Your task to perform on an android device: turn off airplane mode Image 0: 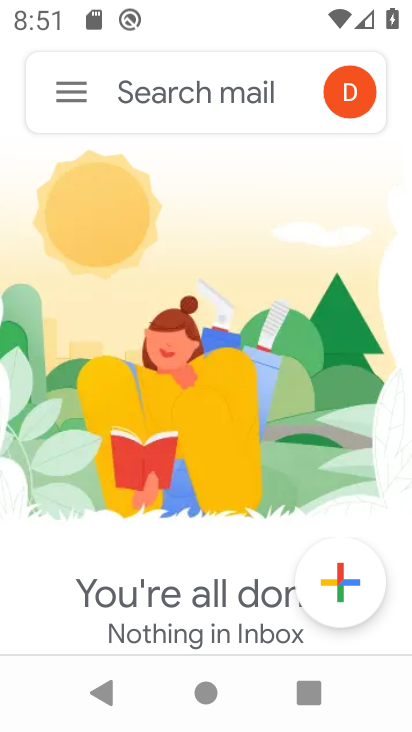
Step 0: press home button
Your task to perform on an android device: turn off airplane mode Image 1: 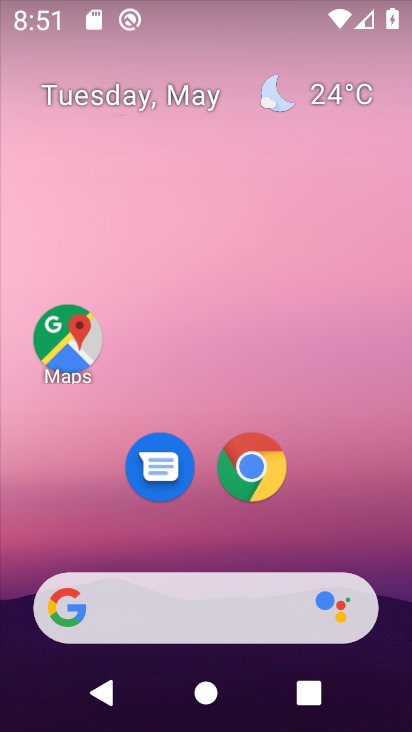
Step 1: drag from (396, 664) to (344, 219)
Your task to perform on an android device: turn off airplane mode Image 2: 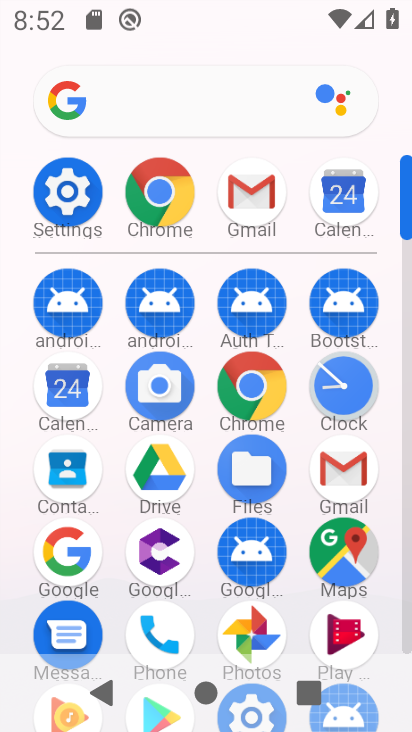
Step 2: click (72, 192)
Your task to perform on an android device: turn off airplane mode Image 3: 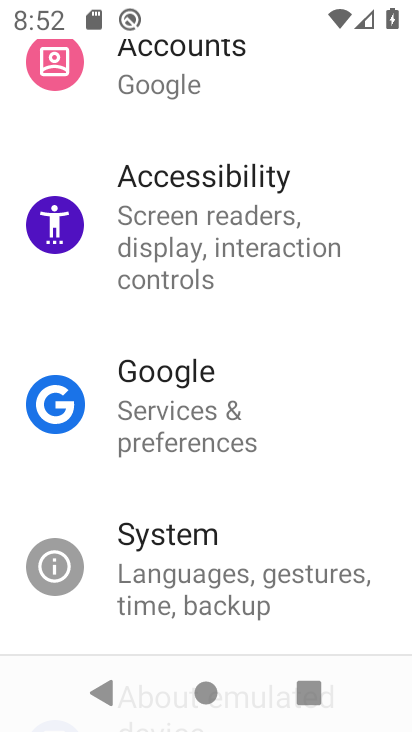
Step 3: drag from (340, 625) to (319, 508)
Your task to perform on an android device: turn off airplane mode Image 4: 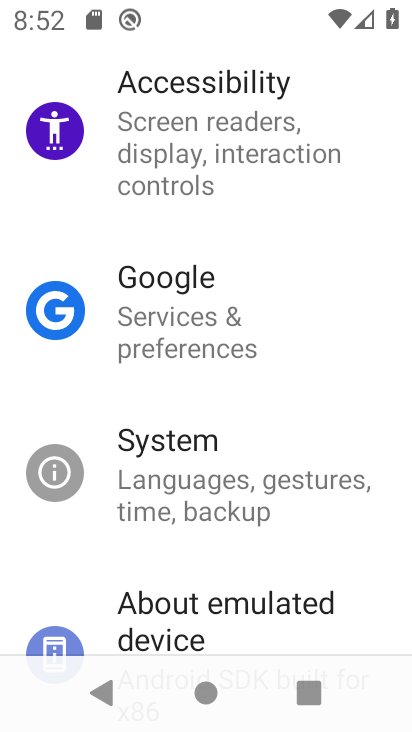
Step 4: drag from (347, 78) to (349, 710)
Your task to perform on an android device: turn off airplane mode Image 5: 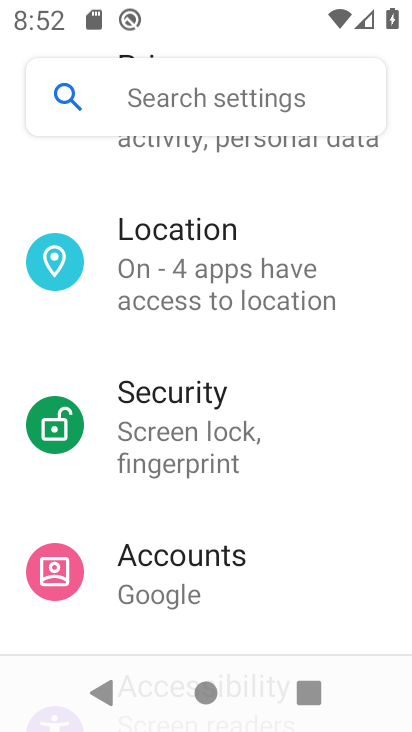
Step 5: drag from (320, 183) to (346, 722)
Your task to perform on an android device: turn off airplane mode Image 6: 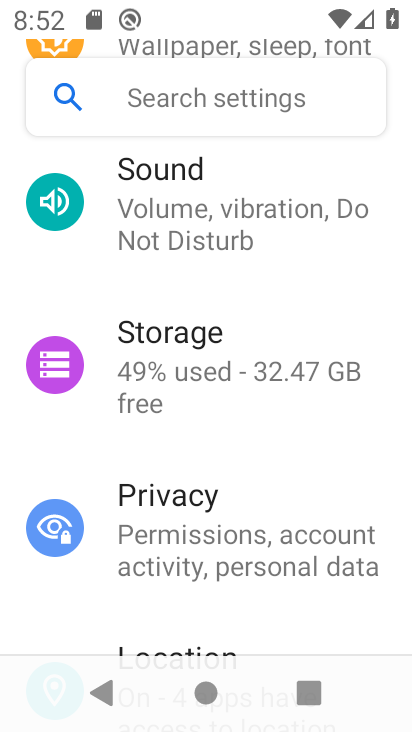
Step 6: drag from (349, 182) to (361, 726)
Your task to perform on an android device: turn off airplane mode Image 7: 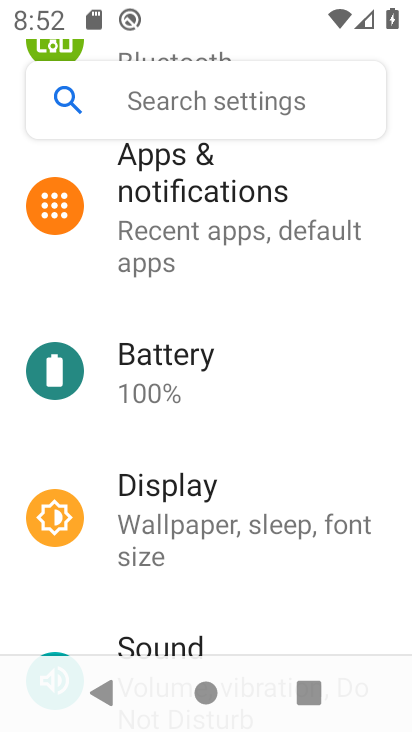
Step 7: drag from (361, 173) to (378, 692)
Your task to perform on an android device: turn off airplane mode Image 8: 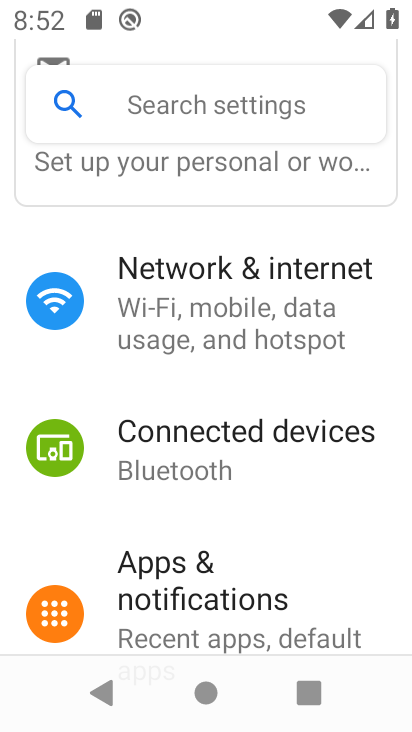
Step 8: click (308, 264)
Your task to perform on an android device: turn off airplane mode Image 9: 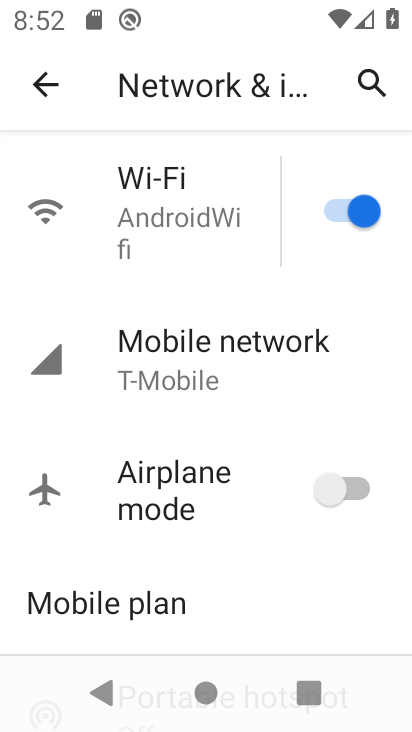
Step 9: task complete